Your task to perform on an android device: Open Google Image 0: 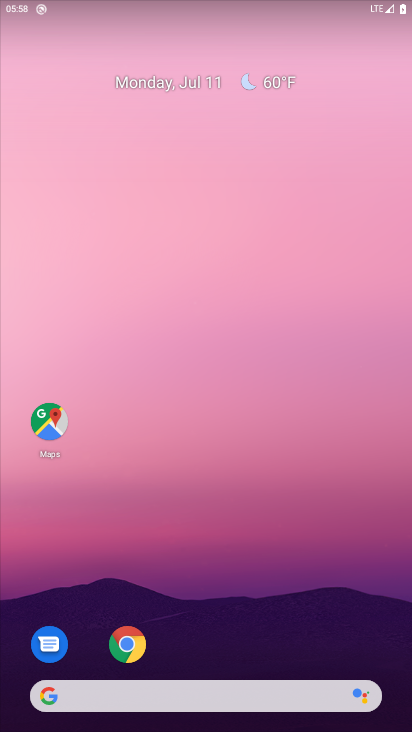
Step 0: drag from (223, 657) to (203, 354)
Your task to perform on an android device: Open Google Image 1: 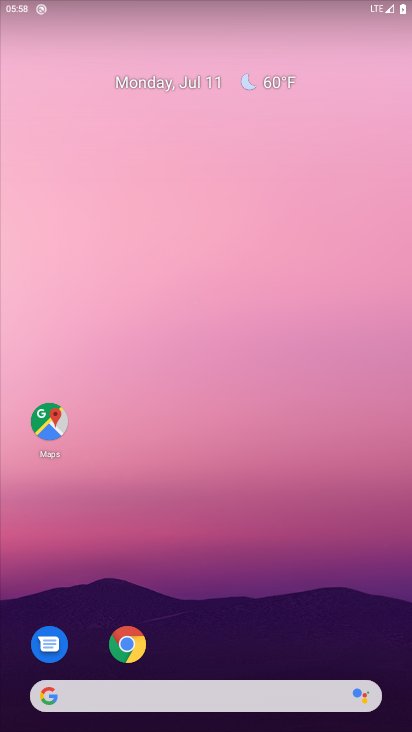
Step 1: drag from (198, 670) to (194, 302)
Your task to perform on an android device: Open Google Image 2: 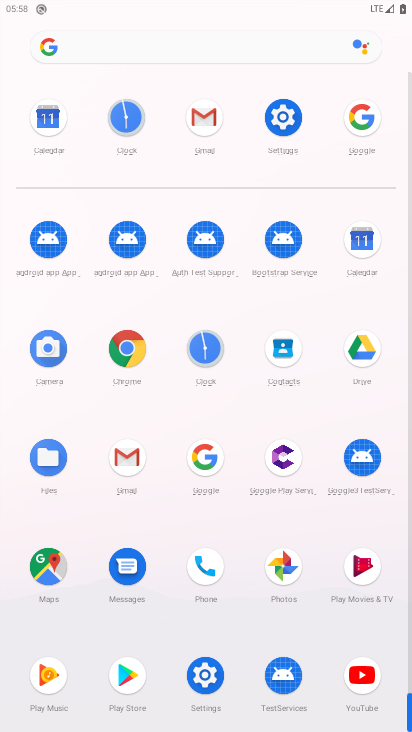
Step 2: click (204, 461)
Your task to perform on an android device: Open Google Image 3: 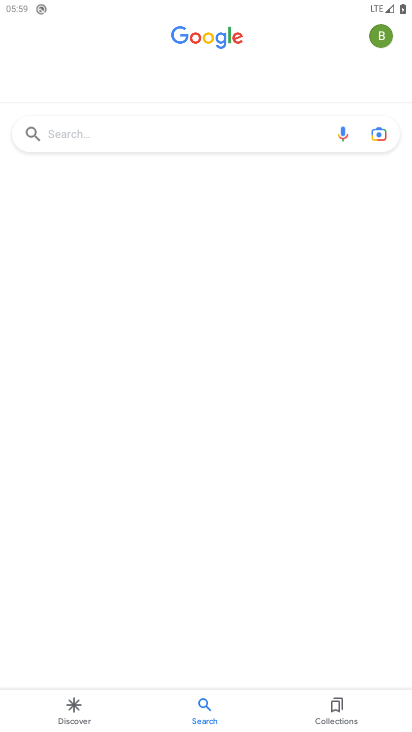
Step 3: task complete